Your task to perform on an android device: What is the news today? Image 0: 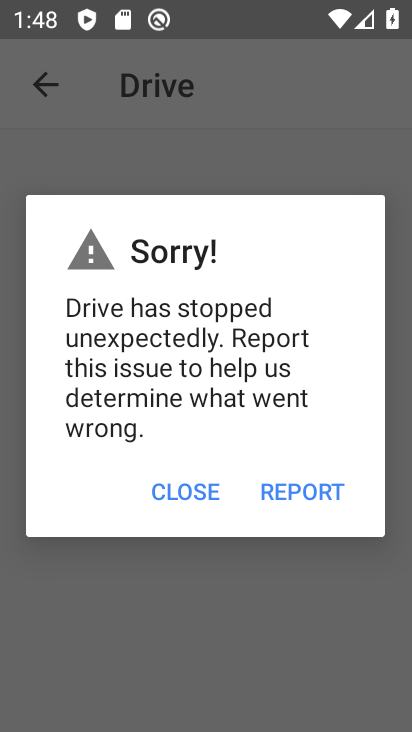
Step 0: press home button
Your task to perform on an android device: What is the news today? Image 1: 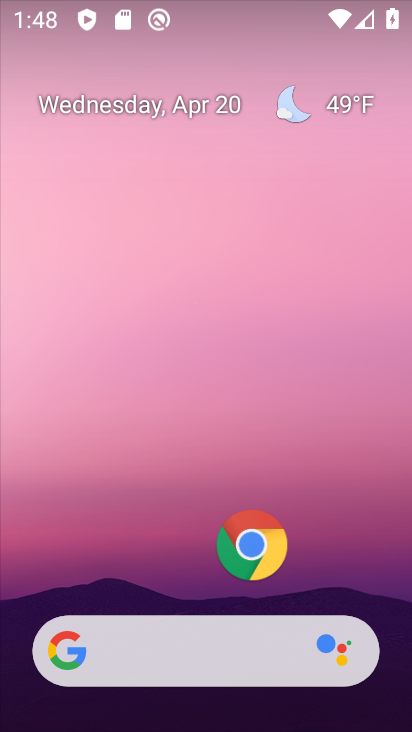
Step 1: drag from (178, 594) to (252, 42)
Your task to perform on an android device: What is the news today? Image 2: 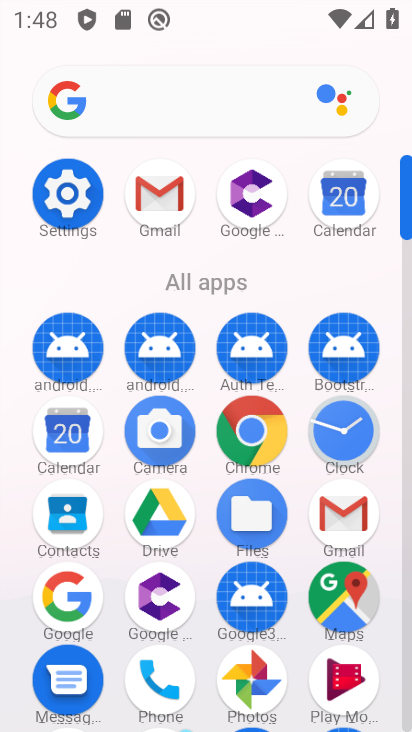
Step 2: click (62, 599)
Your task to perform on an android device: What is the news today? Image 3: 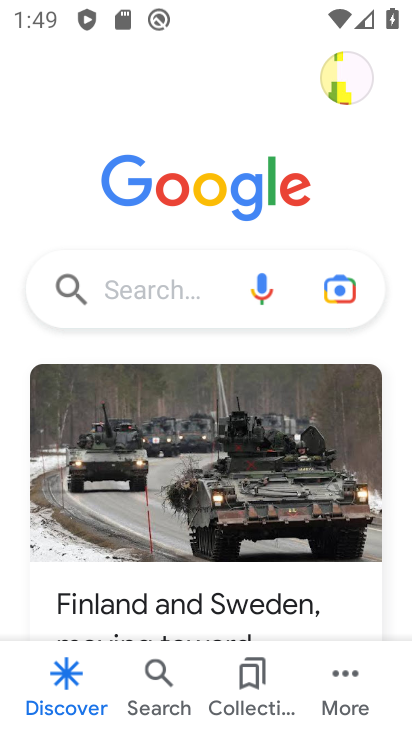
Step 3: click (180, 304)
Your task to perform on an android device: What is the news today? Image 4: 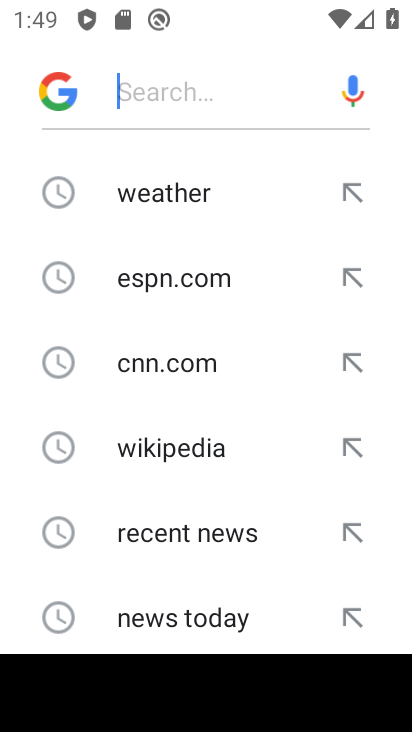
Step 4: click (191, 626)
Your task to perform on an android device: What is the news today? Image 5: 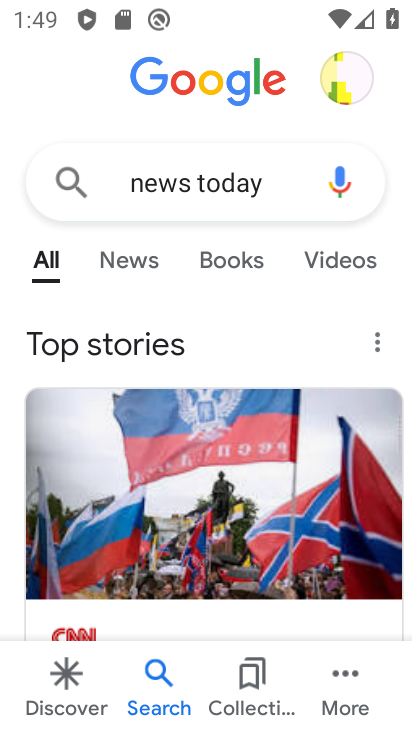
Step 5: drag from (214, 552) to (285, 336)
Your task to perform on an android device: What is the news today? Image 6: 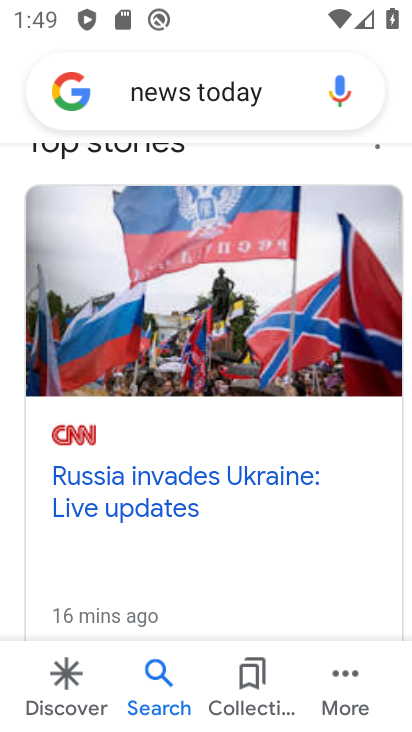
Step 6: drag from (226, 523) to (262, 452)
Your task to perform on an android device: What is the news today? Image 7: 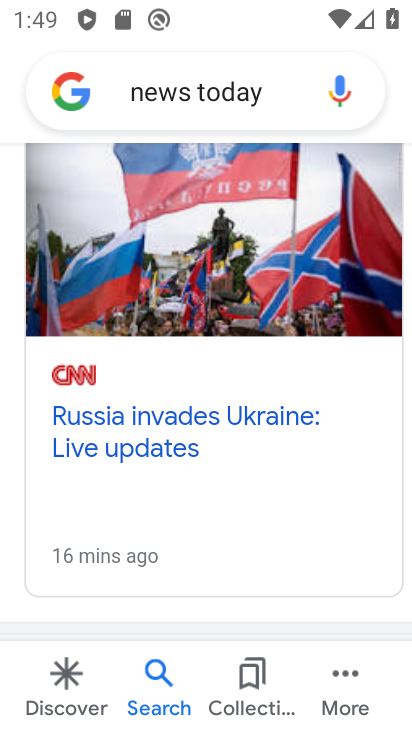
Step 7: click (247, 415)
Your task to perform on an android device: What is the news today? Image 8: 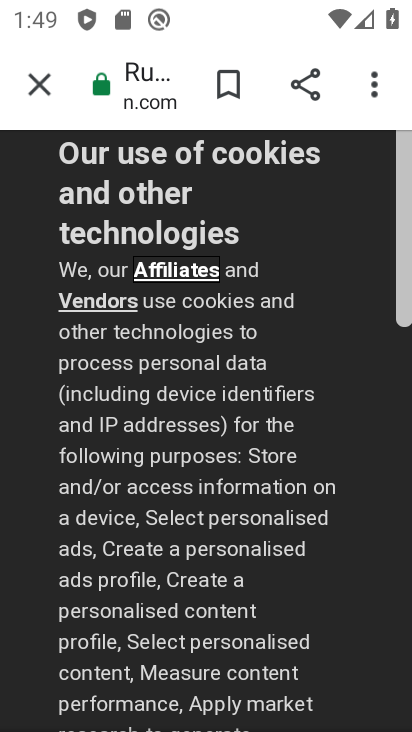
Step 8: task complete